Your task to perform on an android device: What's the weather going to be tomorrow? Image 0: 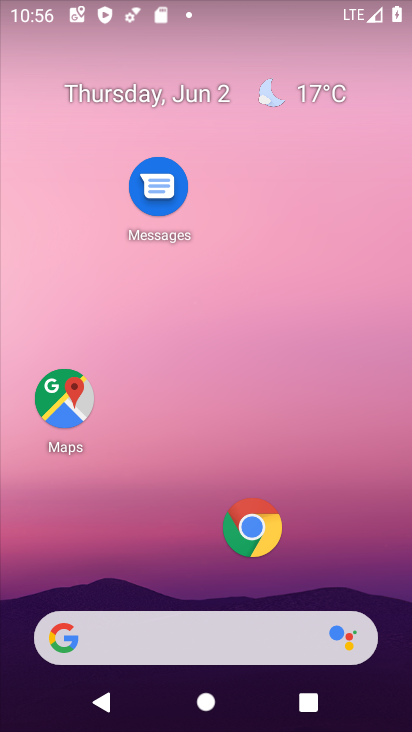
Step 0: click (296, 94)
Your task to perform on an android device: What's the weather going to be tomorrow? Image 1: 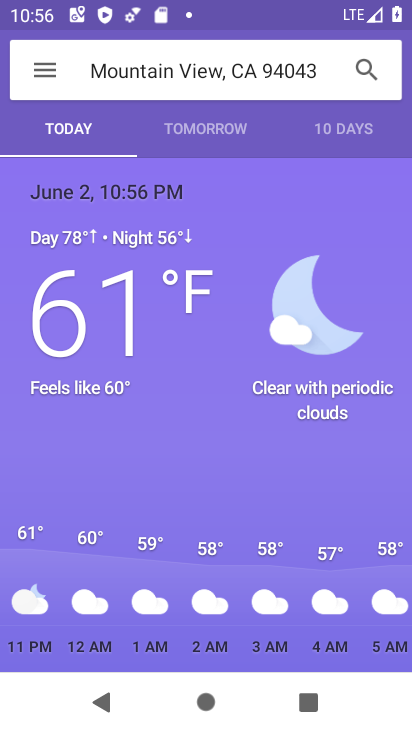
Step 1: click (208, 130)
Your task to perform on an android device: What's the weather going to be tomorrow? Image 2: 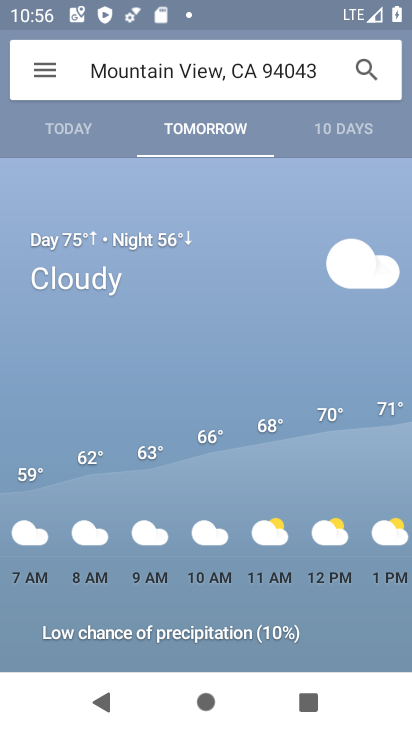
Step 2: task complete